Your task to perform on an android device: move an email to a new category in the gmail app Image 0: 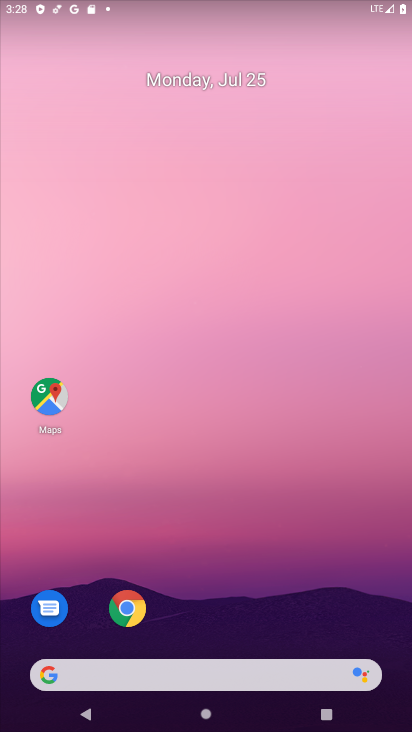
Step 0: drag from (21, 567) to (349, 43)
Your task to perform on an android device: move an email to a new category in the gmail app Image 1: 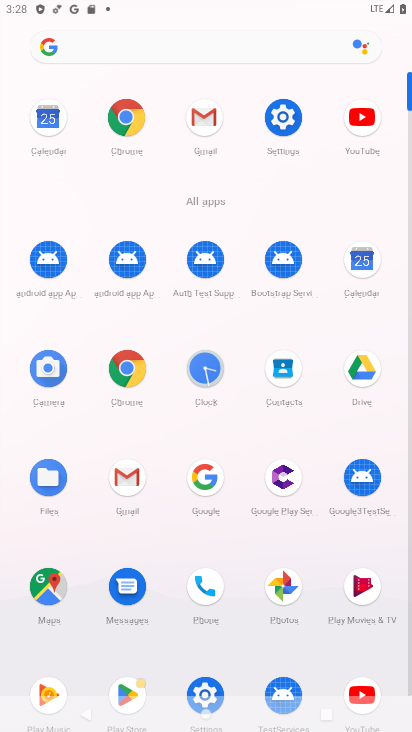
Step 1: click (216, 107)
Your task to perform on an android device: move an email to a new category in the gmail app Image 2: 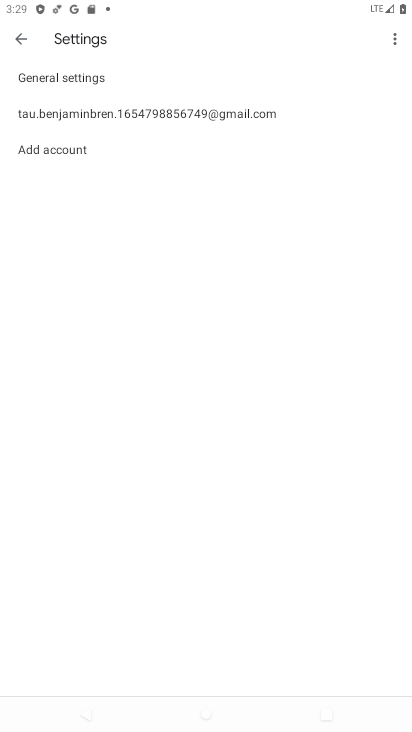
Step 2: task complete